Your task to perform on an android device: turn smart compose on in the gmail app Image 0: 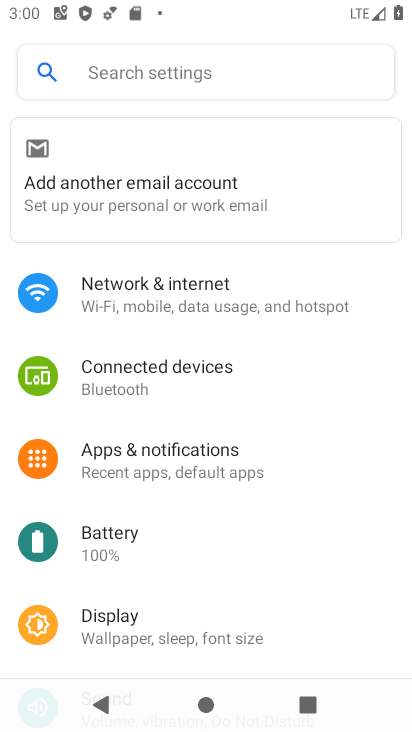
Step 0: press home button
Your task to perform on an android device: turn smart compose on in the gmail app Image 1: 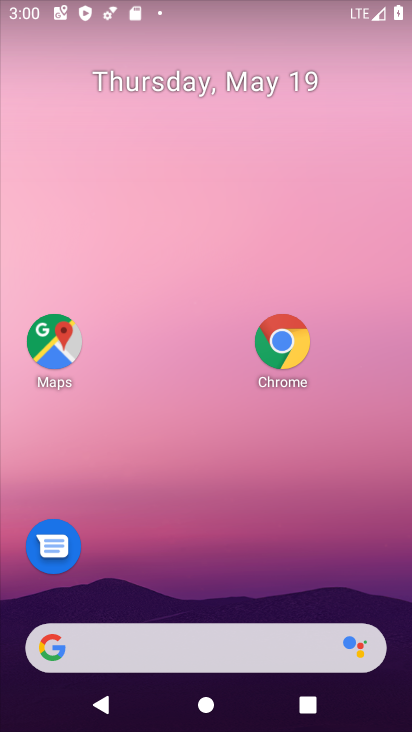
Step 1: drag from (162, 654) to (290, 201)
Your task to perform on an android device: turn smart compose on in the gmail app Image 2: 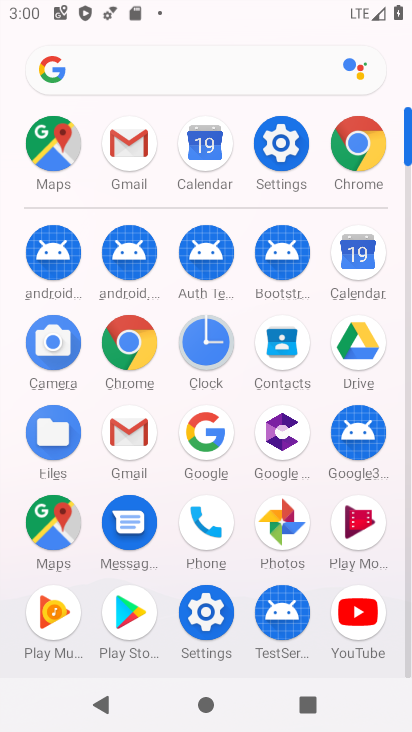
Step 2: click (130, 144)
Your task to perform on an android device: turn smart compose on in the gmail app Image 3: 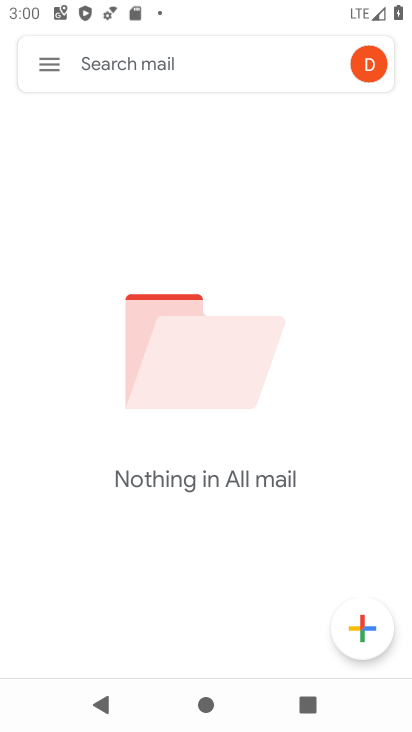
Step 3: click (48, 62)
Your task to perform on an android device: turn smart compose on in the gmail app Image 4: 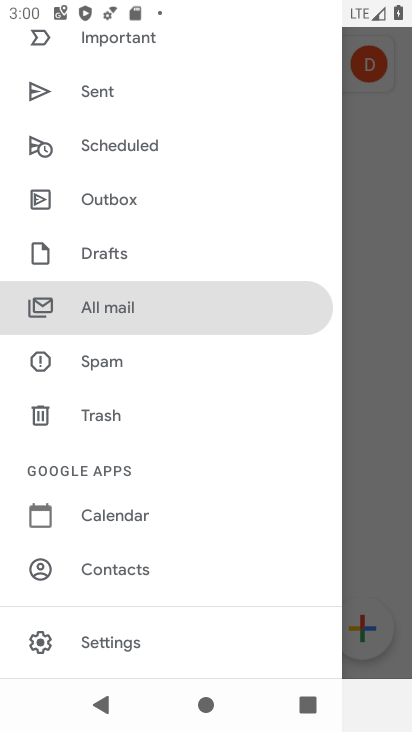
Step 4: click (139, 640)
Your task to perform on an android device: turn smart compose on in the gmail app Image 5: 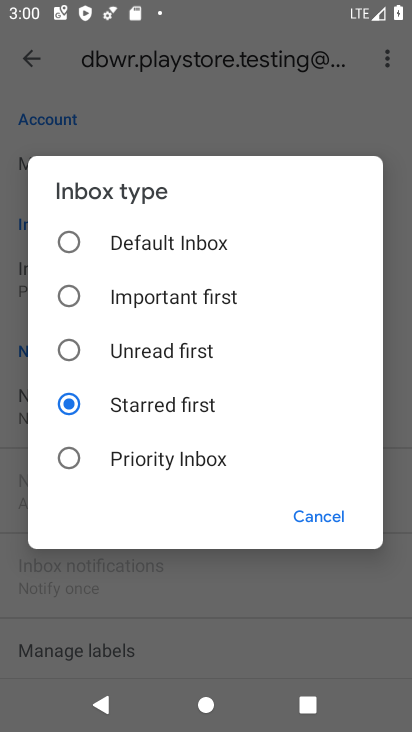
Step 5: click (290, 519)
Your task to perform on an android device: turn smart compose on in the gmail app Image 6: 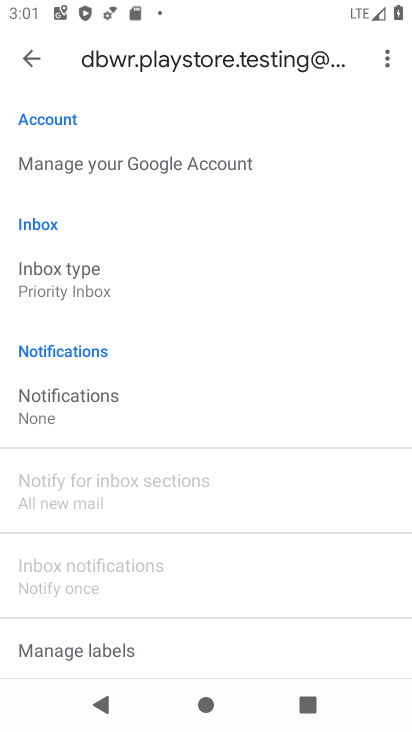
Step 6: task complete